Your task to perform on an android device: open app "Viber Messenger" Image 0: 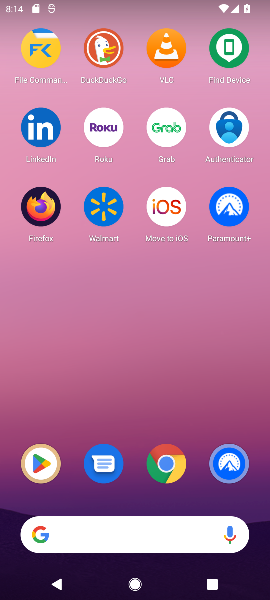
Step 0: click (38, 483)
Your task to perform on an android device: open app "Viber Messenger" Image 1: 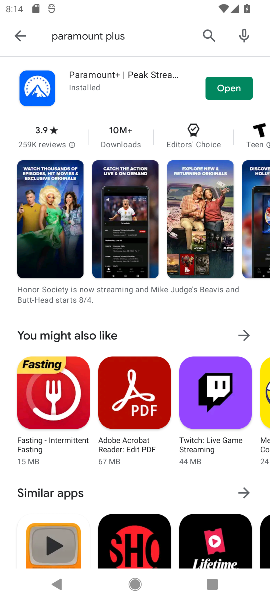
Step 1: click (201, 25)
Your task to perform on an android device: open app "Viber Messenger" Image 2: 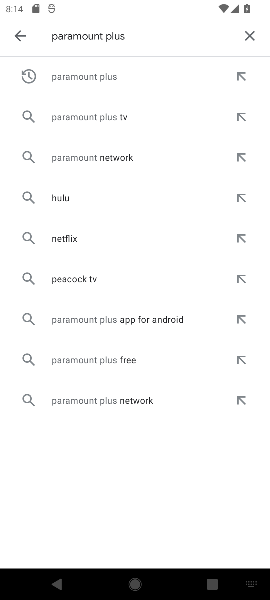
Step 2: click (246, 40)
Your task to perform on an android device: open app "Viber Messenger" Image 3: 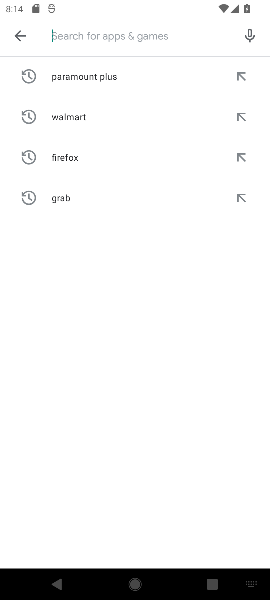
Step 3: click (249, 34)
Your task to perform on an android device: open app "Viber Messenger" Image 4: 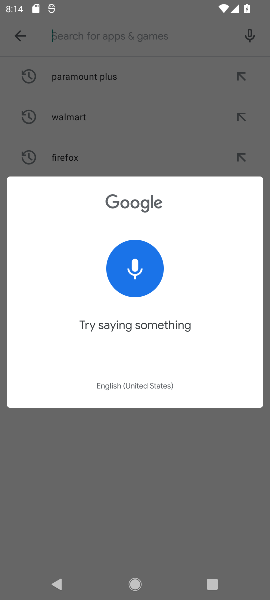
Step 4: type "viber"
Your task to perform on an android device: open app "Viber Messenger" Image 5: 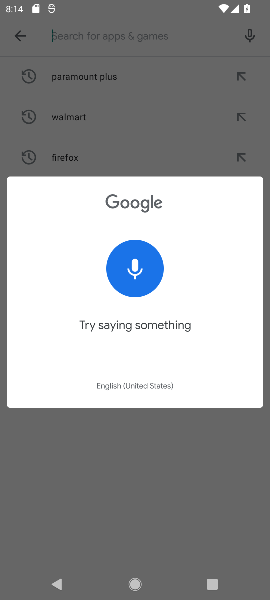
Step 5: click (147, 74)
Your task to perform on an android device: open app "Viber Messenger" Image 6: 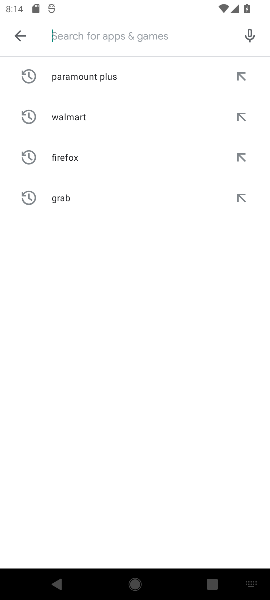
Step 6: click (140, 47)
Your task to perform on an android device: open app "Viber Messenger" Image 7: 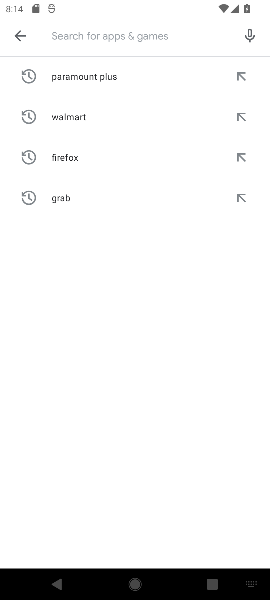
Step 7: type "viber"
Your task to perform on an android device: open app "Viber Messenger" Image 8: 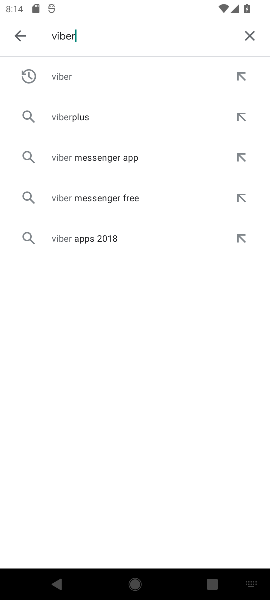
Step 8: click (65, 75)
Your task to perform on an android device: open app "Viber Messenger" Image 9: 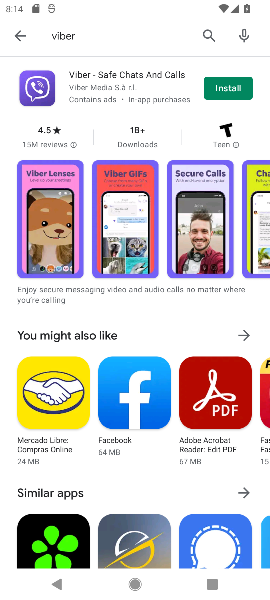
Step 9: click (234, 93)
Your task to perform on an android device: open app "Viber Messenger" Image 10: 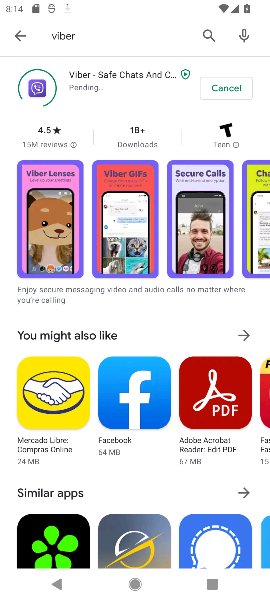
Step 10: task complete